Your task to perform on an android device: Do I have any events today? Image 0: 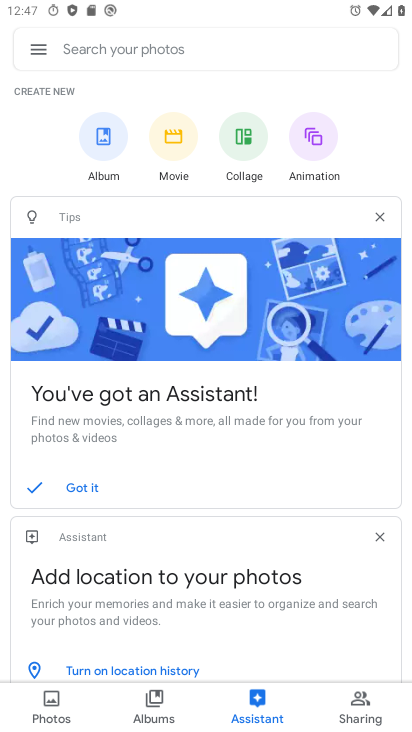
Step 0: press home button
Your task to perform on an android device: Do I have any events today? Image 1: 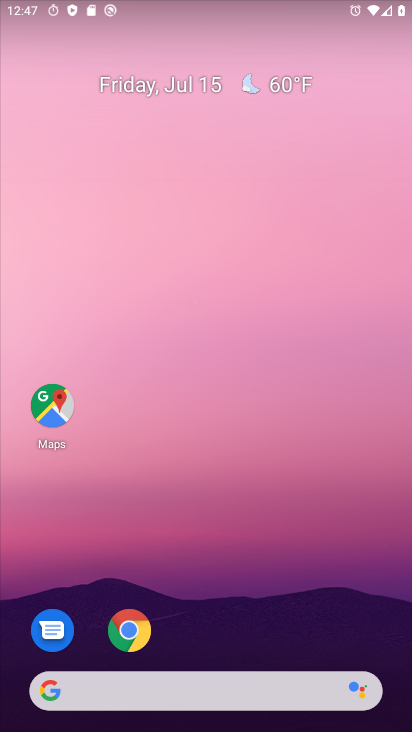
Step 1: drag from (195, 581) to (221, 217)
Your task to perform on an android device: Do I have any events today? Image 2: 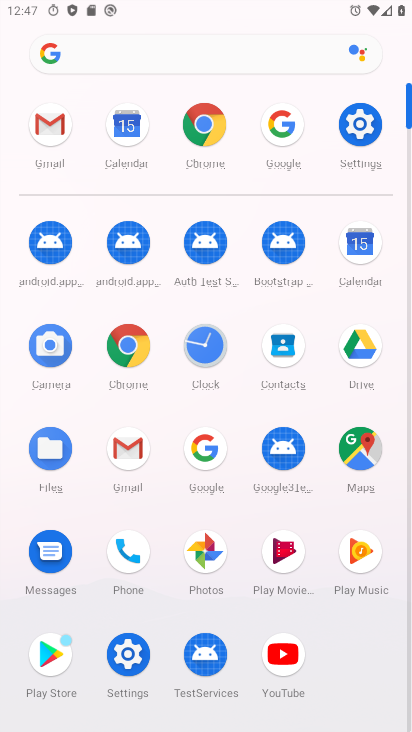
Step 2: click (361, 268)
Your task to perform on an android device: Do I have any events today? Image 3: 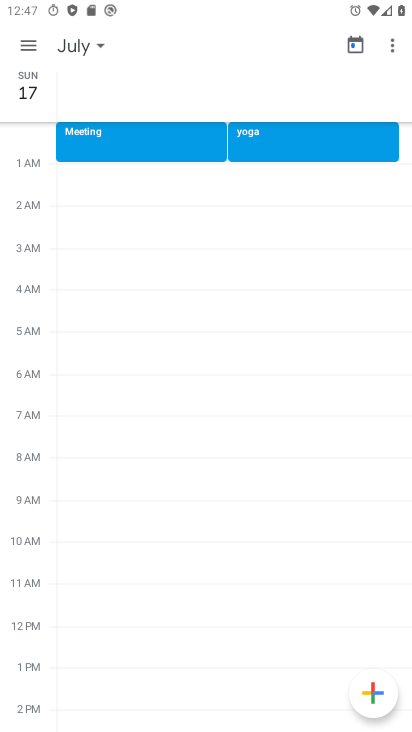
Step 3: click (76, 45)
Your task to perform on an android device: Do I have any events today? Image 4: 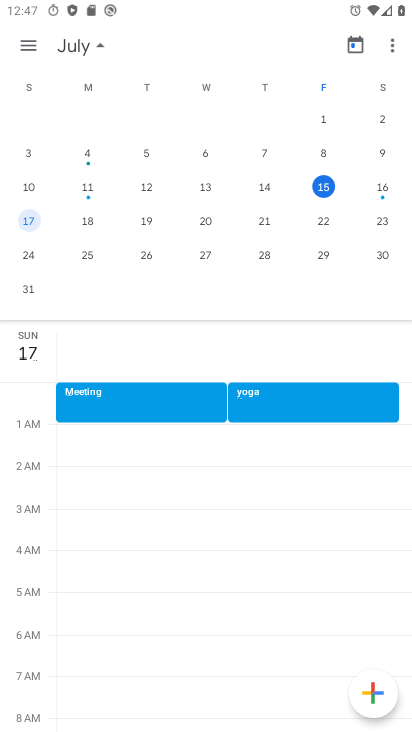
Step 4: click (319, 187)
Your task to perform on an android device: Do I have any events today? Image 5: 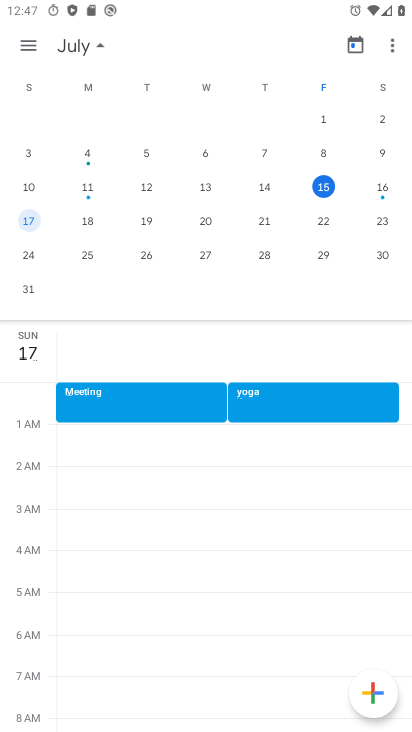
Step 5: click (319, 187)
Your task to perform on an android device: Do I have any events today? Image 6: 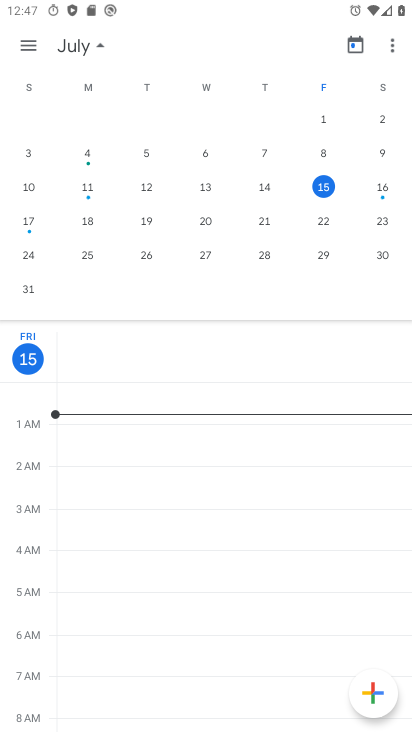
Step 6: task complete